Your task to perform on an android device: move an email to a new category in the gmail app Image 0: 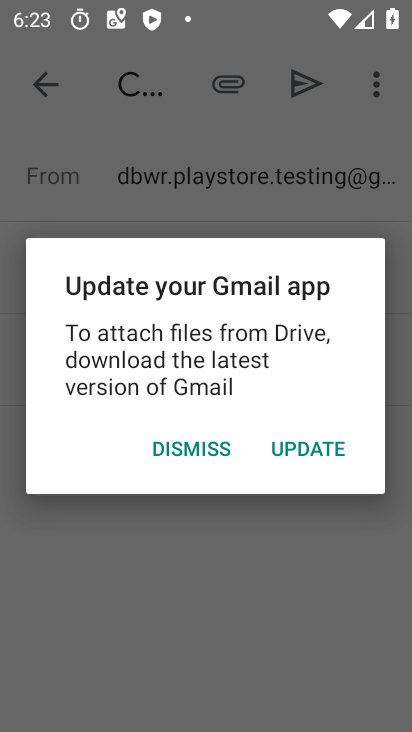
Step 0: press home button
Your task to perform on an android device: move an email to a new category in the gmail app Image 1: 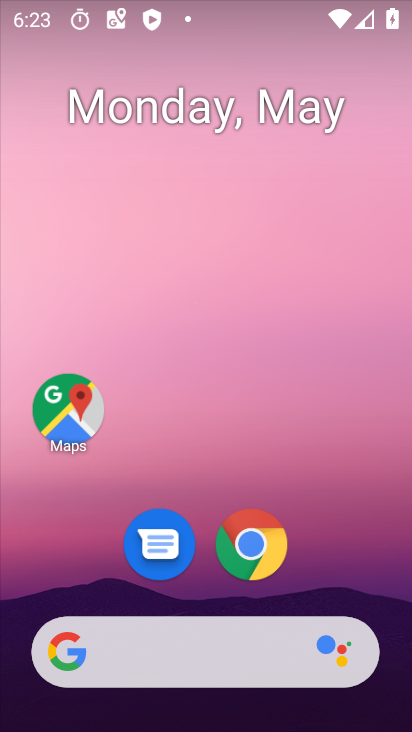
Step 1: drag from (353, 558) to (143, 8)
Your task to perform on an android device: move an email to a new category in the gmail app Image 2: 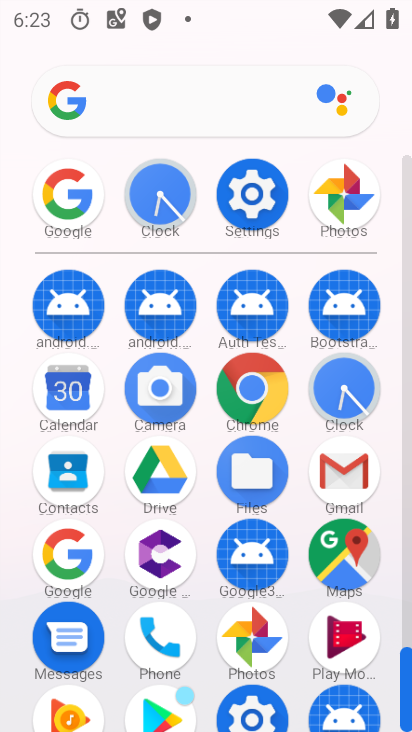
Step 2: click (342, 471)
Your task to perform on an android device: move an email to a new category in the gmail app Image 3: 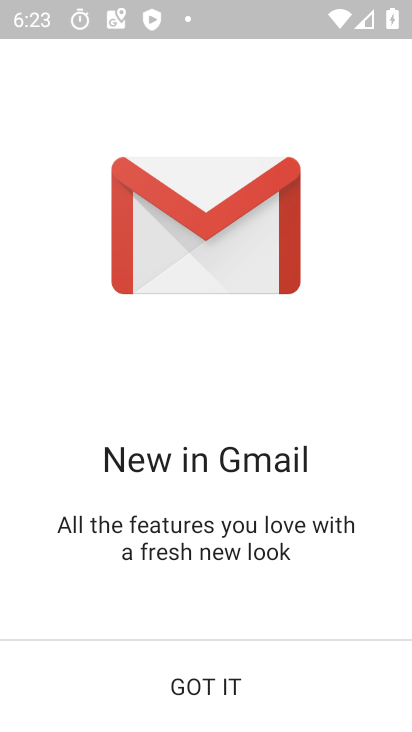
Step 3: click (226, 682)
Your task to perform on an android device: move an email to a new category in the gmail app Image 4: 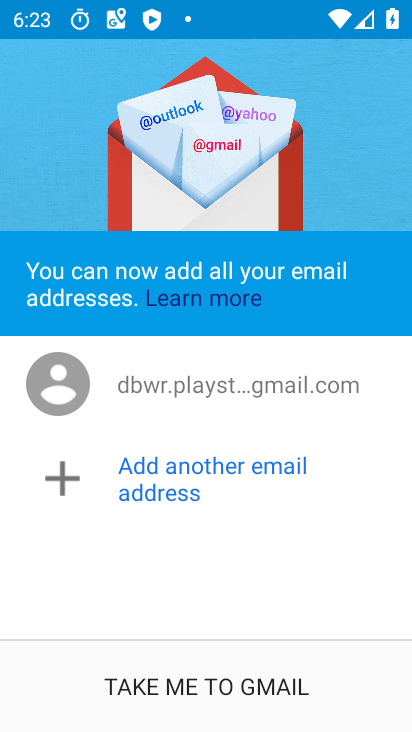
Step 4: click (246, 677)
Your task to perform on an android device: move an email to a new category in the gmail app Image 5: 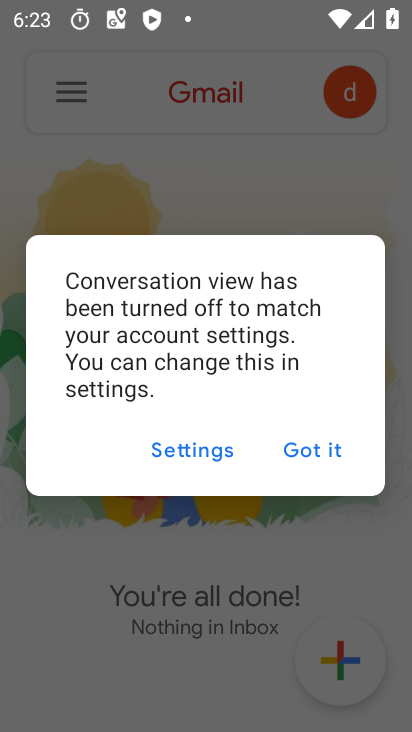
Step 5: click (317, 442)
Your task to perform on an android device: move an email to a new category in the gmail app Image 6: 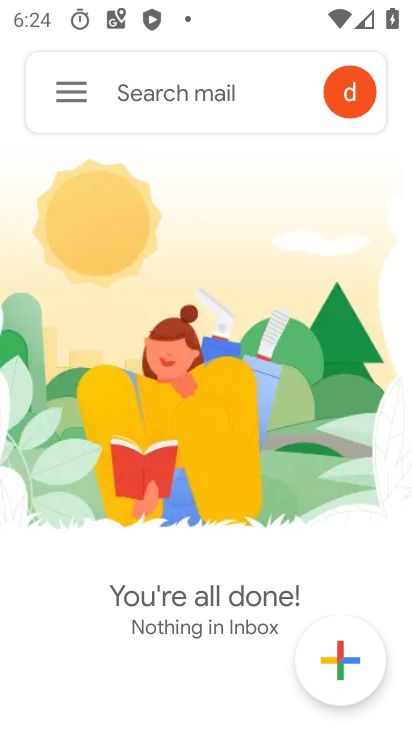
Step 6: click (70, 104)
Your task to perform on an android device: move an email to a new category in the gmail app Image 7: 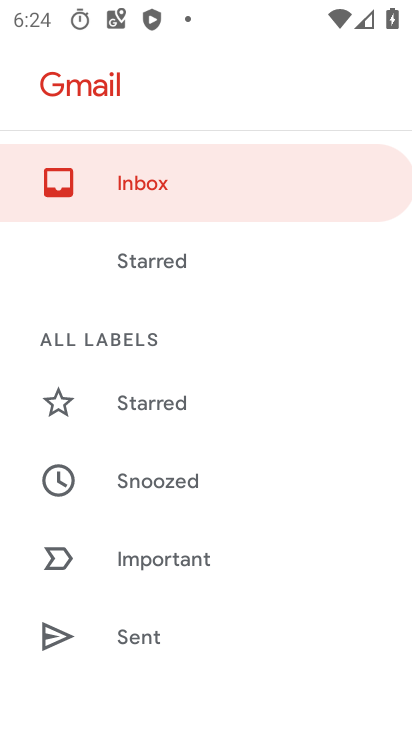
Step 7: click (217, 191)
Your task to perform on an android device: move an email to a new category in the gmail app Image 8: 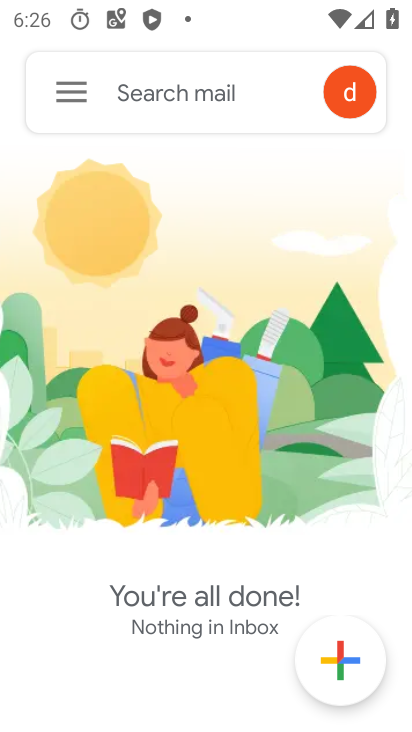
Step 8: task complete